Your task to perform on an android device: Is it going to rain tomorrow? Image 0: 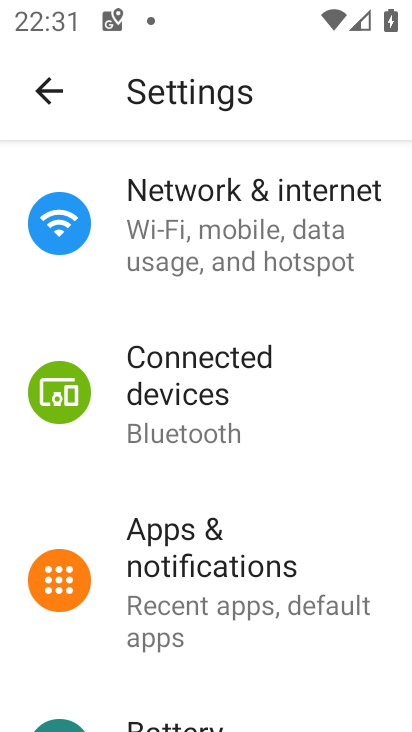
Step 0: press home button
Your task to perform on an android device: Is it going to rain tomorrow? Image 1: 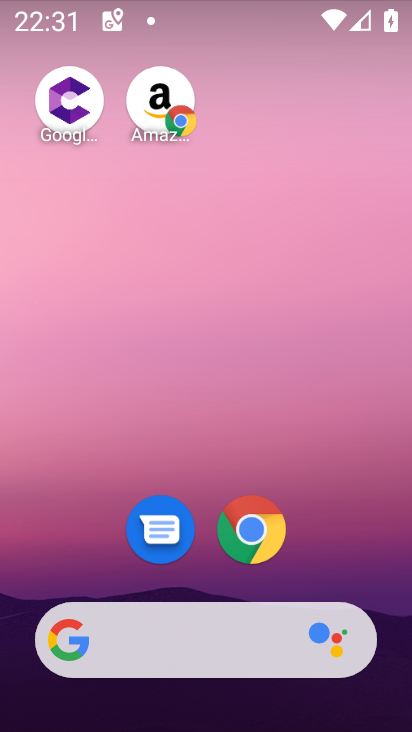
Step 1: drag from (348, 686) to (299, 24)
Your task to perform on an android device: Is it going to rain tomorrow? Image 2: 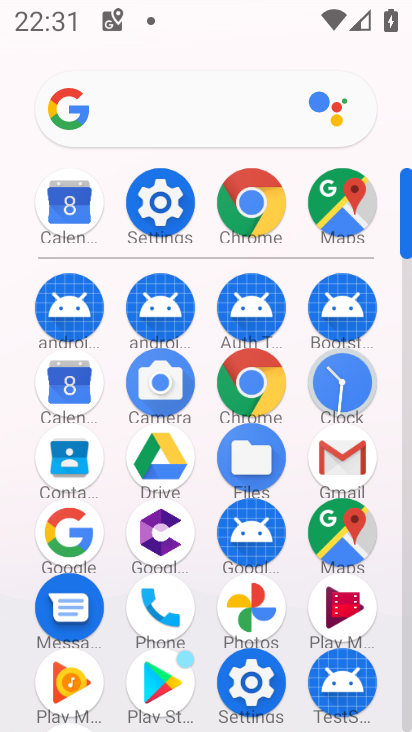
Step 2: click (268, 385)
Your task to perform on an android device: Is it going to rain tomorrow? Image 3: 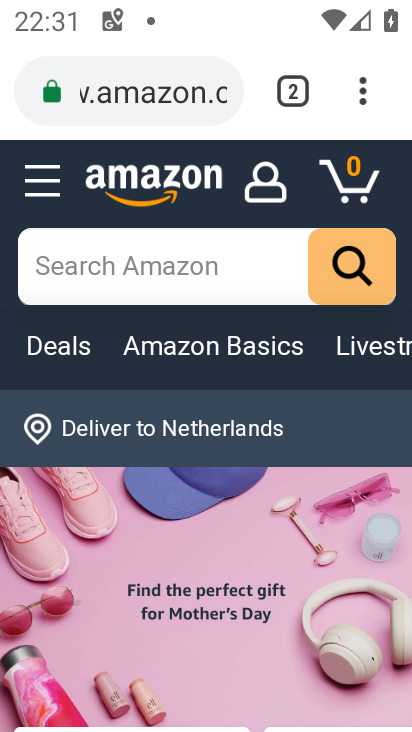
Step 3: click (203, 99)
Your task to perform on an android device: Is it going to rain tomorrow? Image 4: 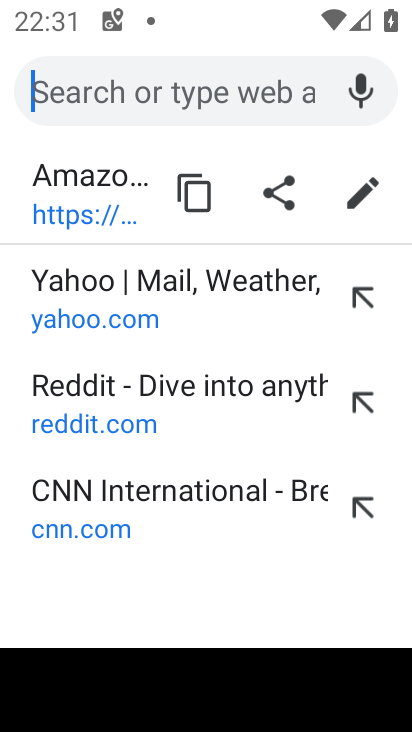
Step 4: type "rain tomorrow"
Your task to perform on an android device: Is it going to rain tomorrow? Image 5: 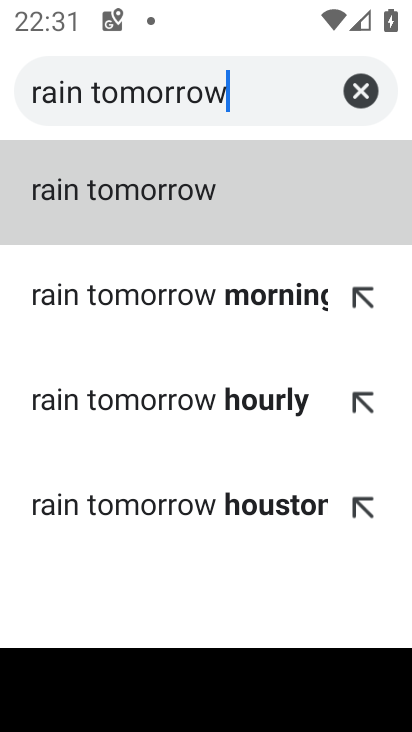
Step 5: click (279, 193)
Your task to perform on an android device: Is it going to rain tomorrow? Image 6: 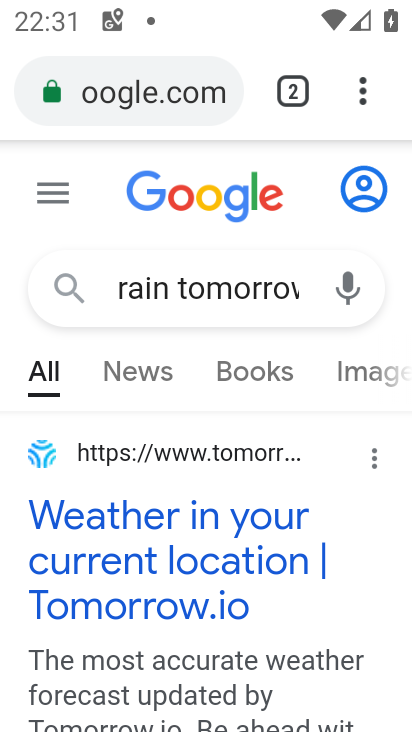
Step 6: task complete